Your task to perform on an android device: Search for razer blade on target.com, select the first entry, add it to the cart, then select checkout. Image 0: 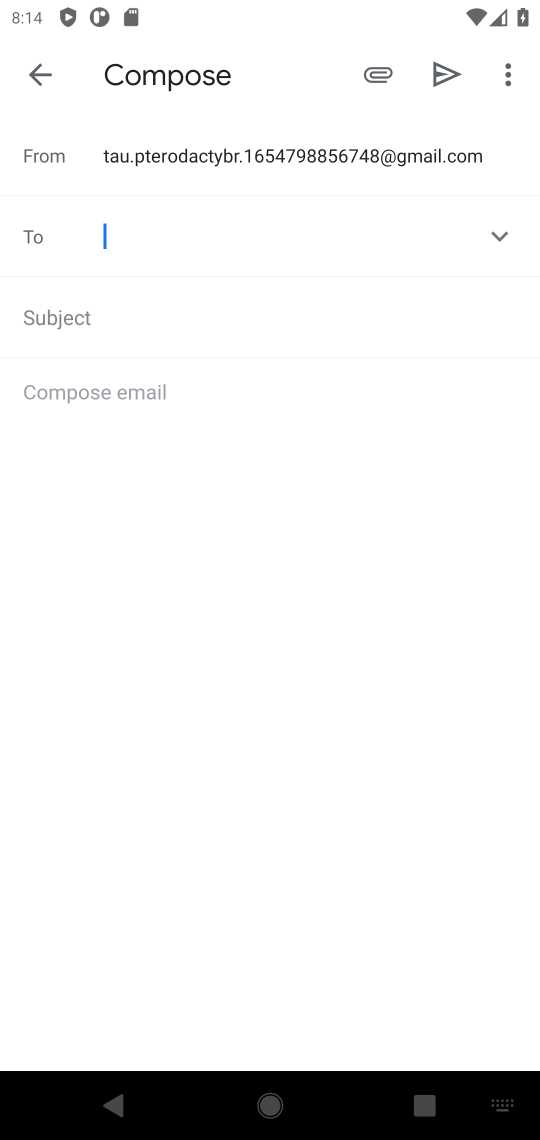
Step 0: press home button
Your task to perform on an android device: Search for razer blade on target.com, select the first entry, add it to the cart, then select checkout. Image 1: 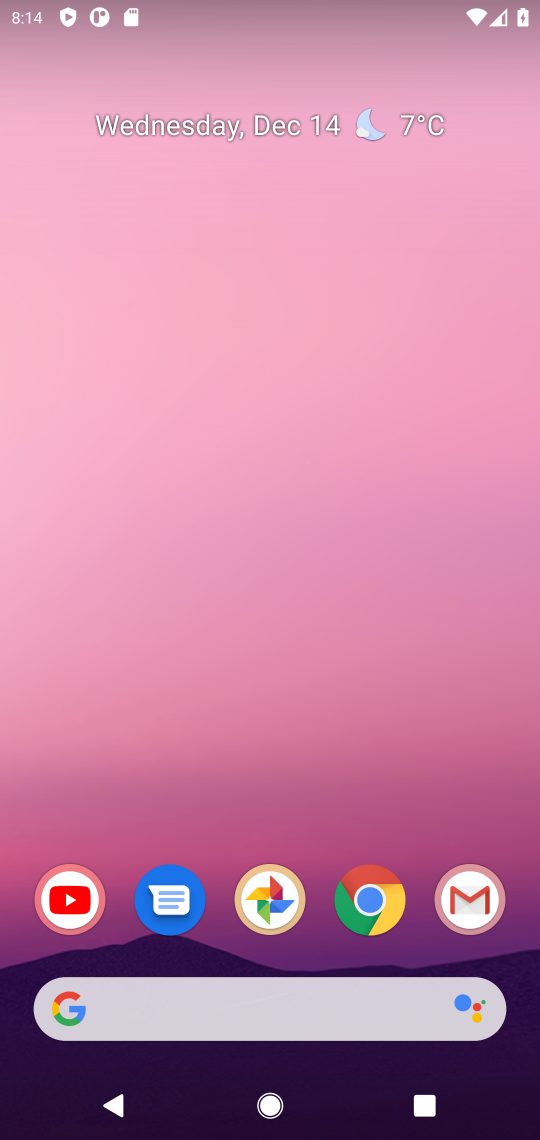
Step 1: click (273, 969)
Your task to perform on an android device: Search for razer blade on target.com, select the first entry, add it to the cart, then select checkout. Image 2: 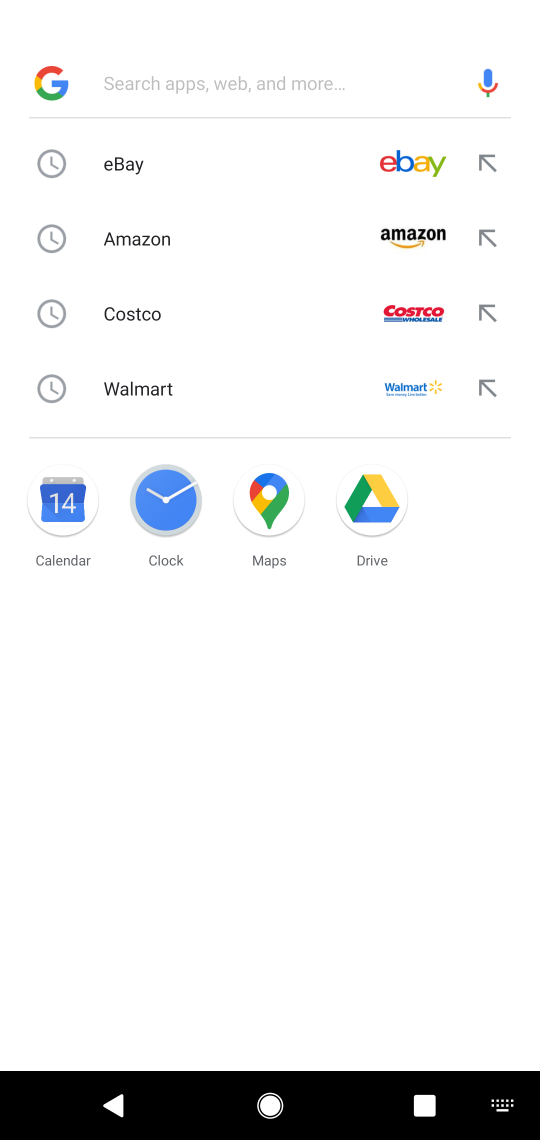
Step 2: type "target.com,"
Your task to perform on an android device: Search for razer blade on target.com, select the first entry, add it to the cart, then select checkout. Image 3: 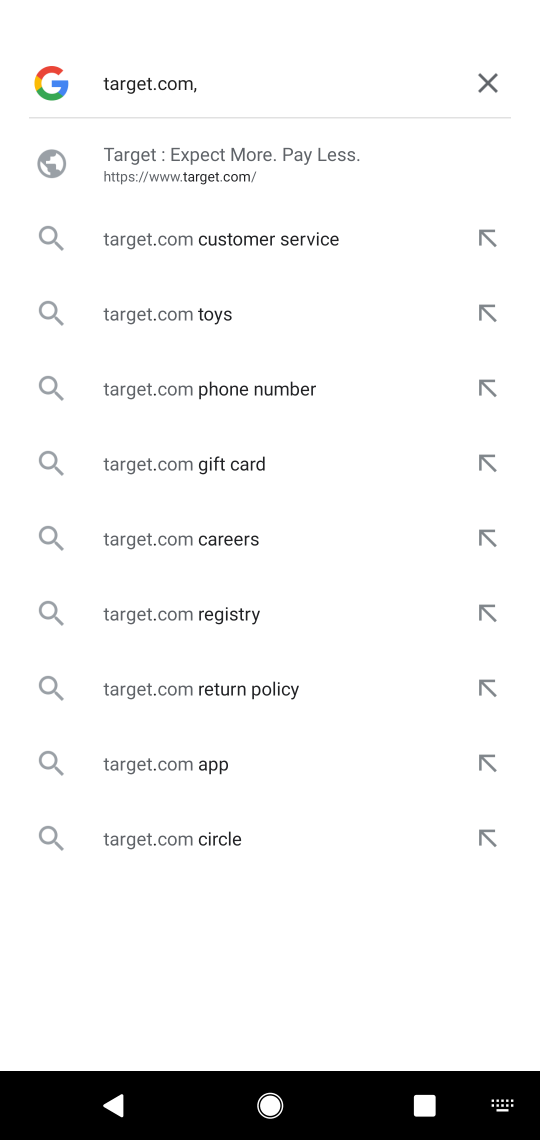
Step 3: type ""
Your task to perform on an android device: Search for razer blade on target.com, select the first entry, add it to the cart, then select checkout. Image 4: 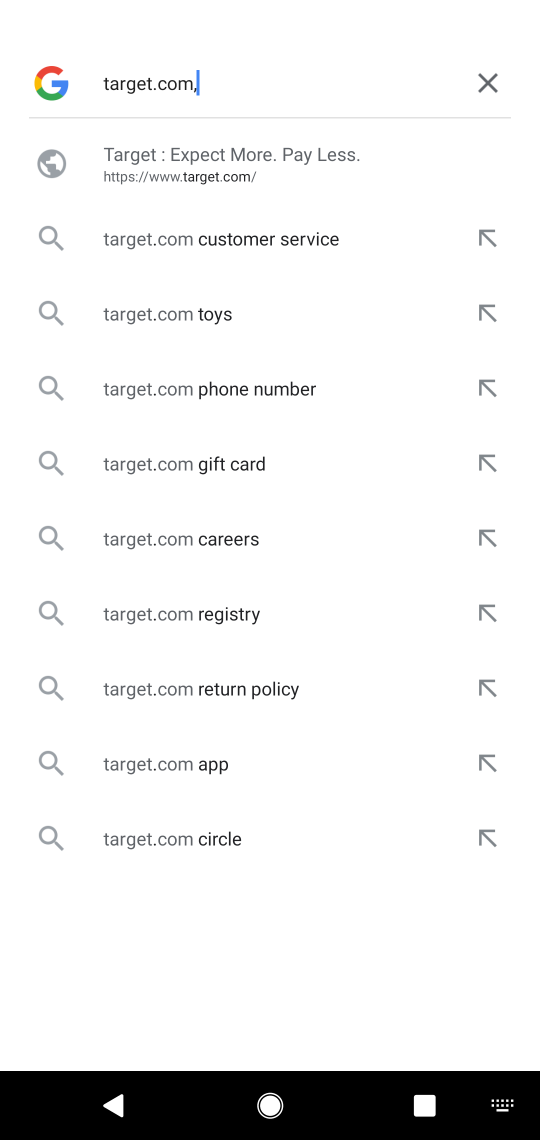
Step 4: click (165, 197)
Your task to perform on an android device: Search for razer blade on target.com, select the first entry, add it to the cart, then select checkout. Image 5: 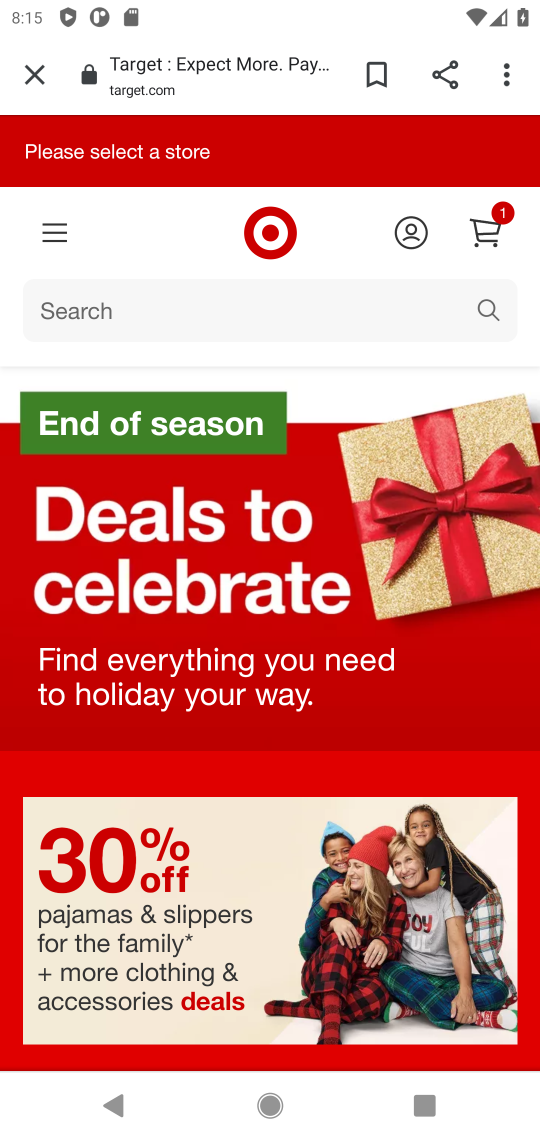
Step 5: click (54, 315)
Your task to perform on an android device: Search for razer blade on target.com, select the first entry, add it to the cart, then select checkout. Image 6: 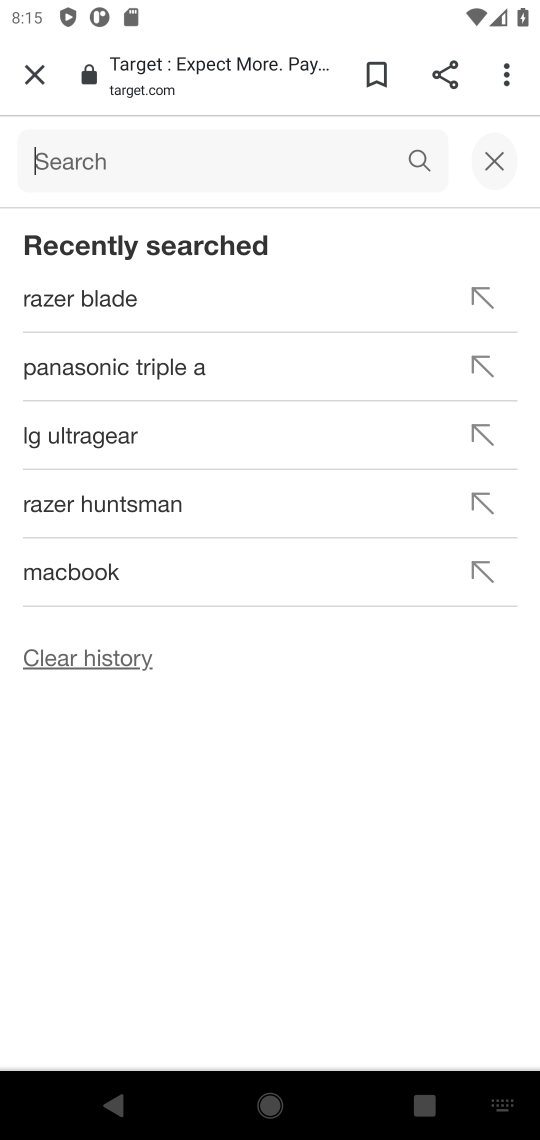
Step 6: type "razer blade "
Your task to perform on an android device: Search for razer blade on target.com, select the first entry, add it to the cart, then select checkout. Image 7: 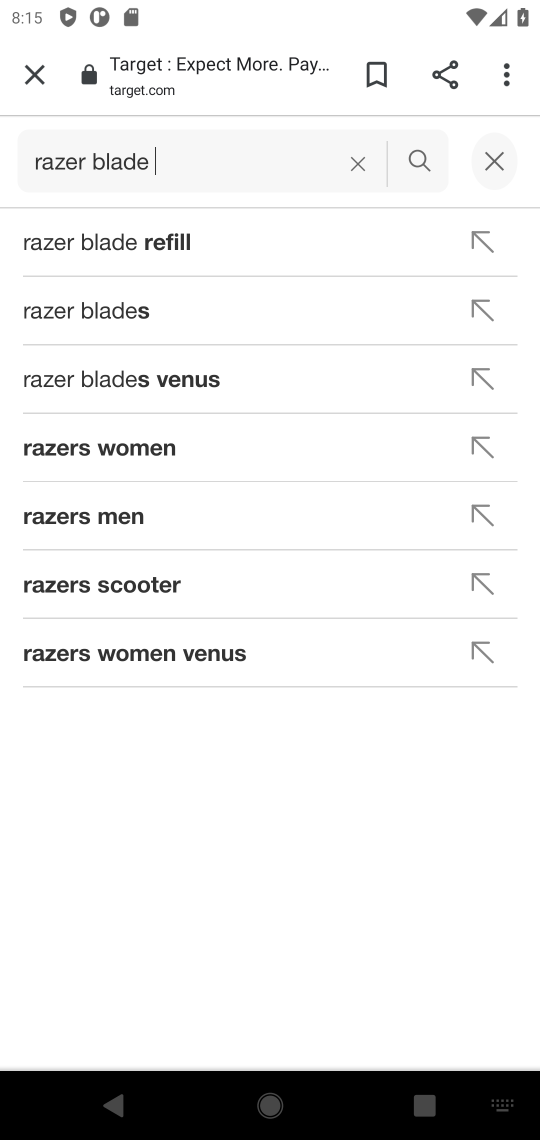
Step 7: type ""
Your task to perform on an android device: Search for razer blade on target.com, select the first entry, add it to the cart, then select checkout. Image 8: 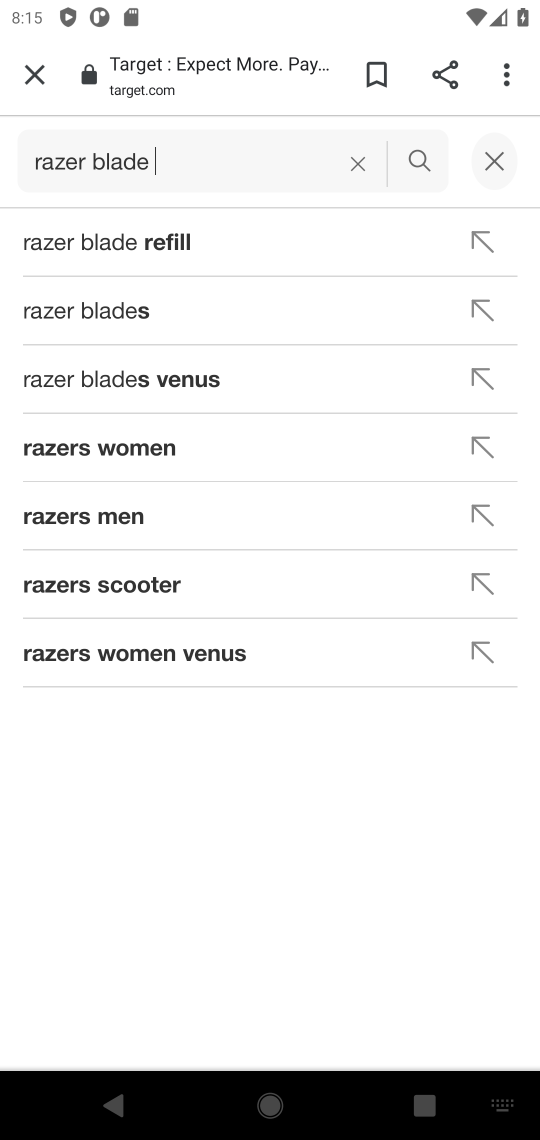
Step 8: click (418, 151)
Your task to perform on an android device: Search for razer blade on target.com, select the first entry, add it to the cart, then select checkout. Image 9: 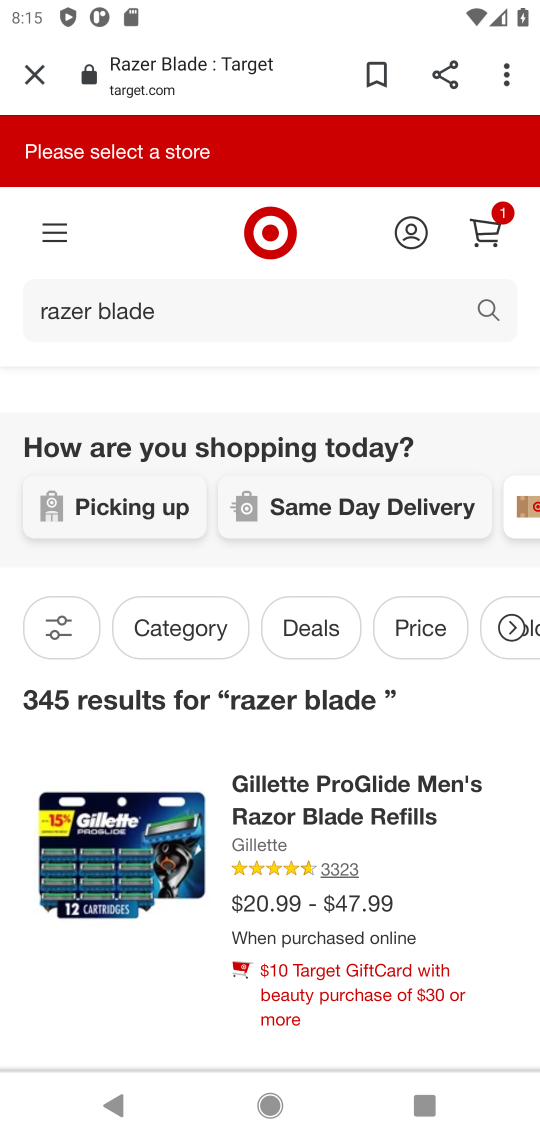
Step 9: drag from (293, 922) to (295, 365)
Your task to perform on an android device: Search for razer blade on target.com, select the first entry, add it to the cart, then select checkout. Image 10: 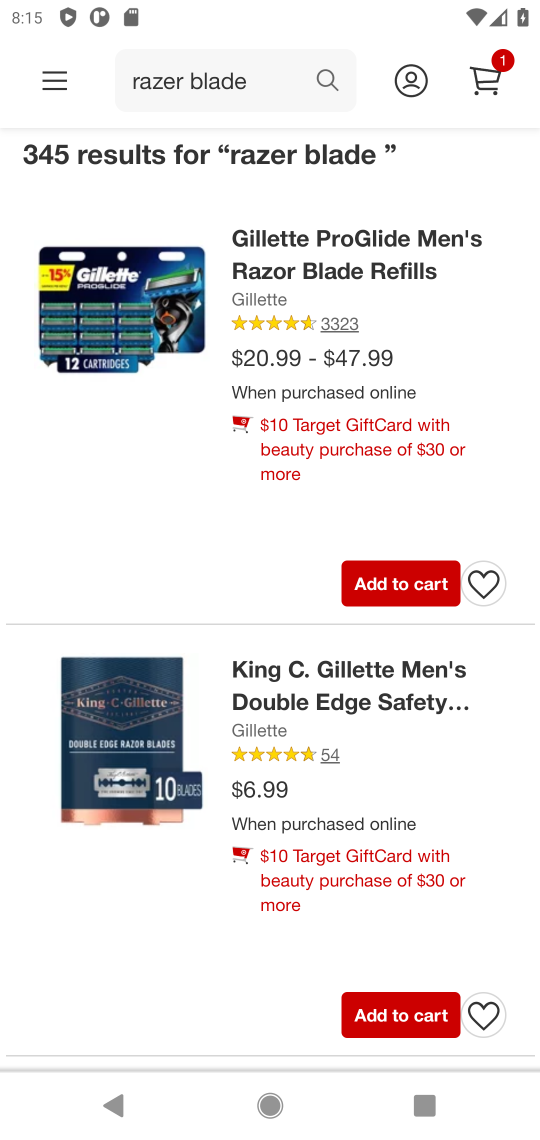
Step 10: click (387, 597)
Your task to perform on an android device: Search for razer blade on target.com, select the first entry, add it to the cart, then select checkout. Image 11: 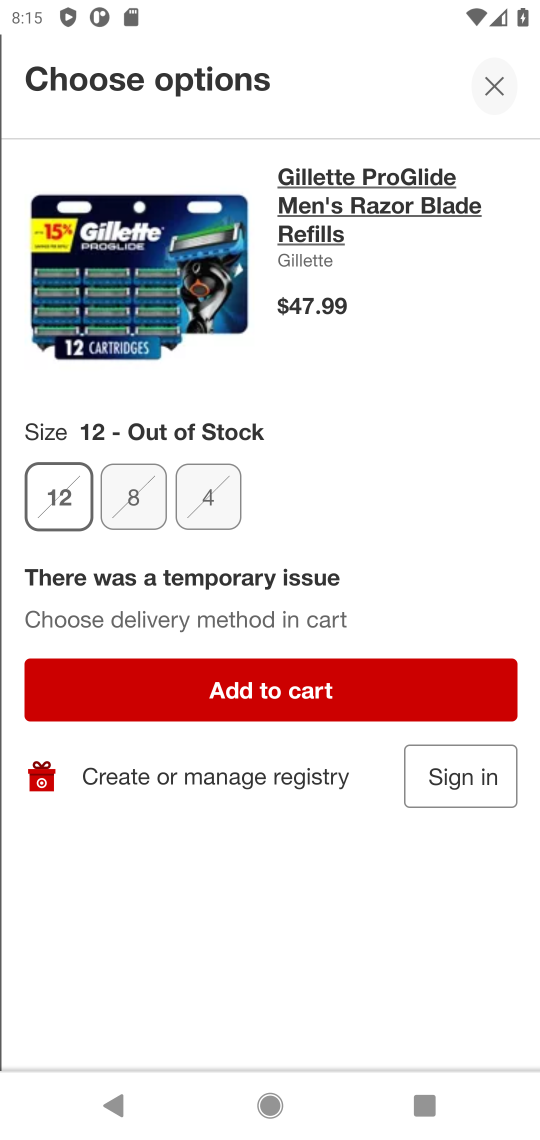
Step 11: task complete